Your task to perform on an android device: What is the news today? Image 0: 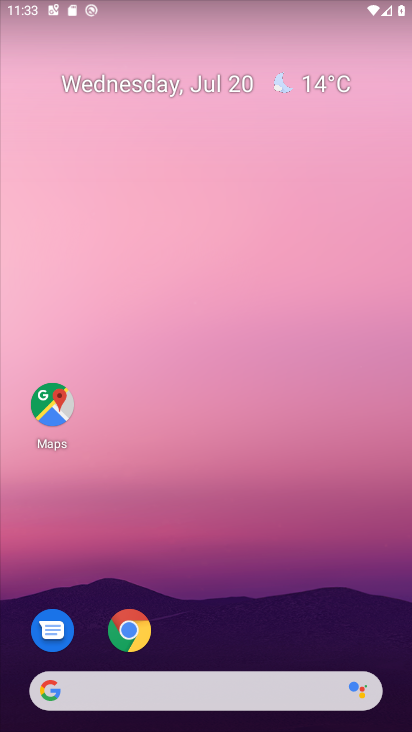
Step 0: click (207, 680)
Your task to perform on an android device: What is the news today? Image 1: 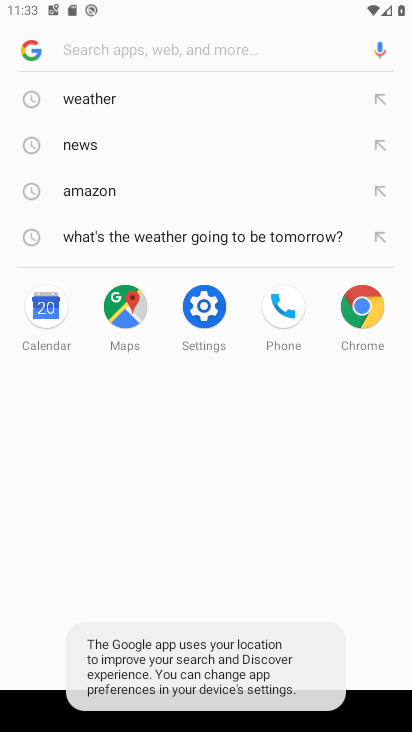
Step 1: click (84, 137)
Your task to perform on an android device: What is the news today? Image 2: 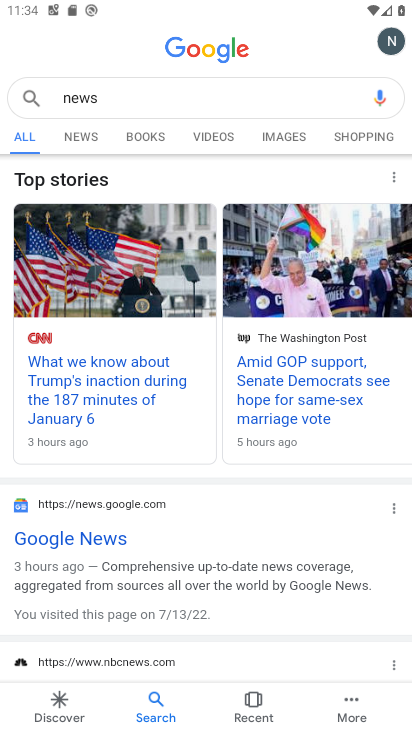
Step 2: click (60, 144)
Your task to perform on an android device: What is the news today? Image 3: 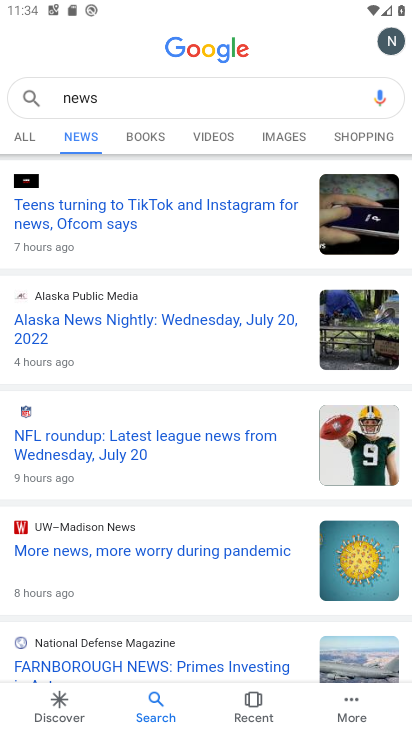
Step 3: task complete